Your task to perform on an android device: Open Reddit.com Image 0: 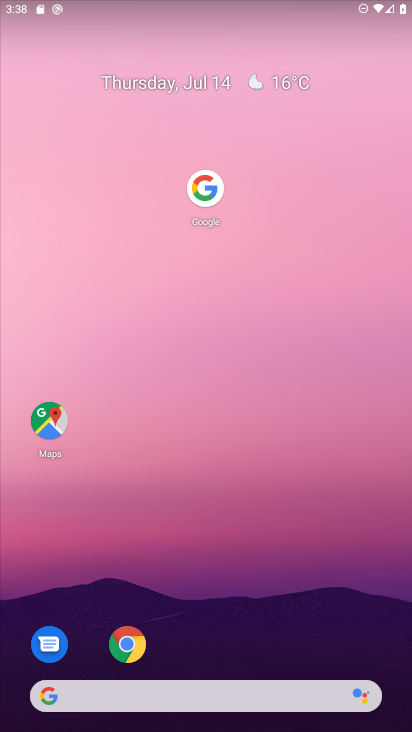
Step 0: click (136, 628)
Your task to perform on an android device: Open Reddit.com Image 1: 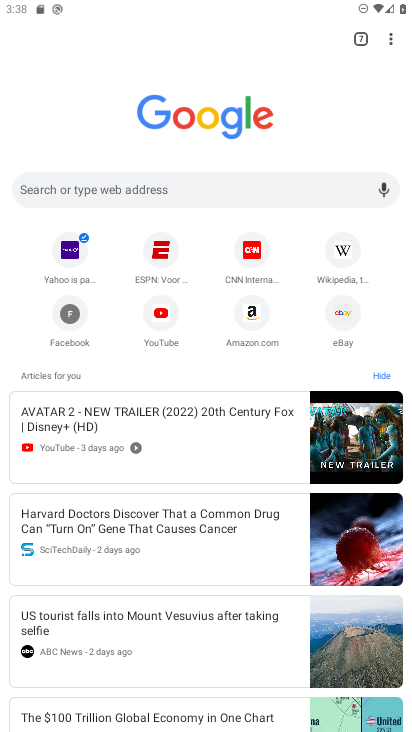
Step 1: click (234, 194)
Your task to perform on an android device: Open Reddit.com Image 2: 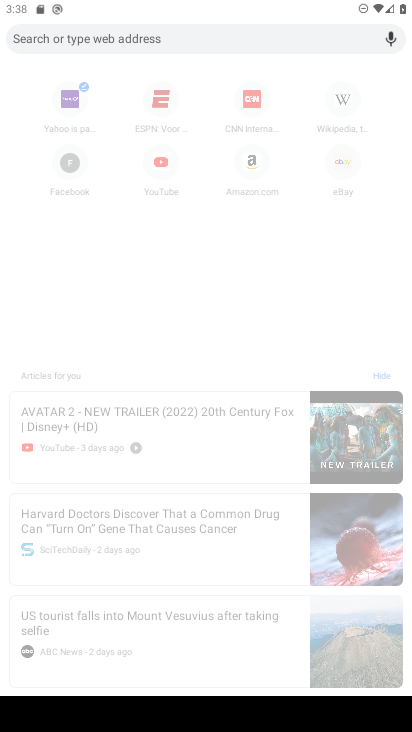
Step 2: type "Reddit.com"
Your task to perform on an android device: Open Reddit.com Image 3: 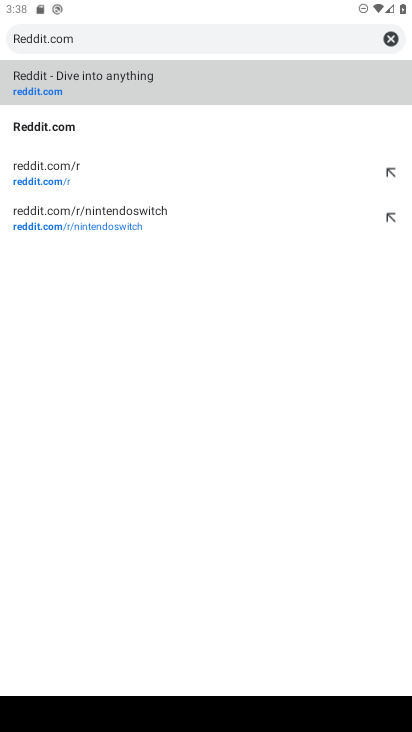
Step 3: click (76, 121)
Your task to perform on an android device: Open Reddit.com Image 4: 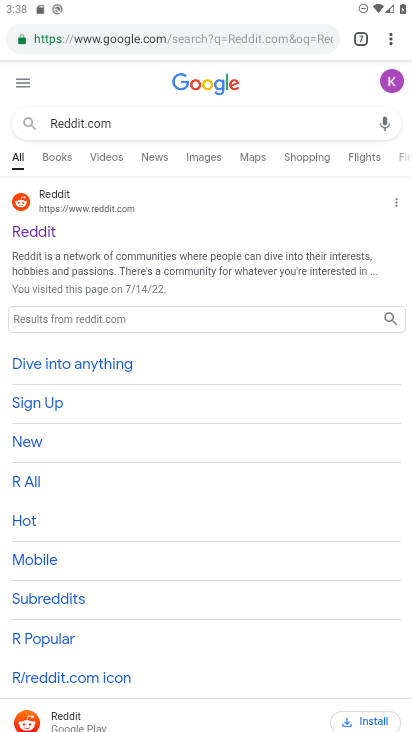
Step 4: click (39, 186)
Your task to perform on an android device: Open Reddit.com Image 5: 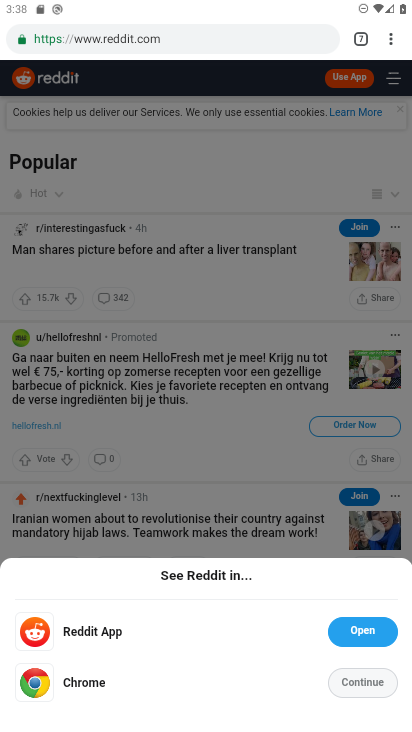
Step 5: task complete